Your task to perform on an android device: Open Google Chrome Image 0: 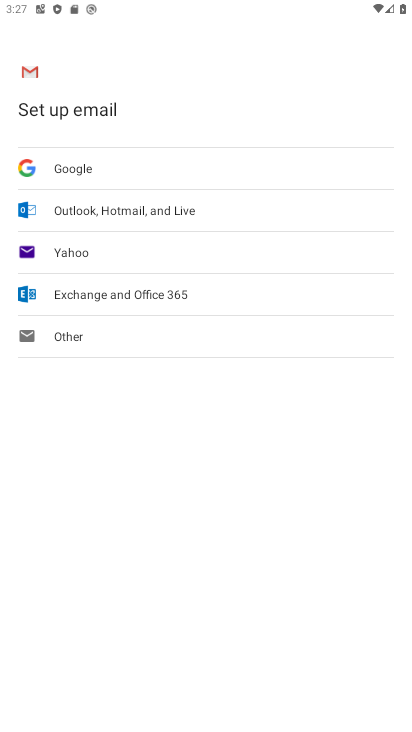
Step 0: press home button
Your task to perform on an android device: Open Google Chrome Image 1: 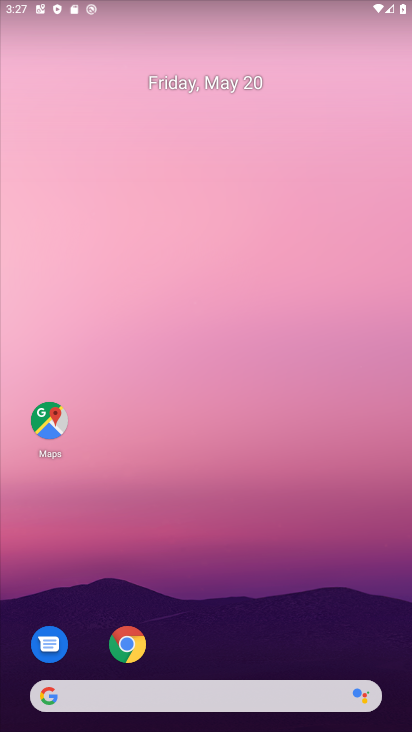
Step 1: click (137, 634)
Your task to perform on an android device: Open Google Chrome Image 2: 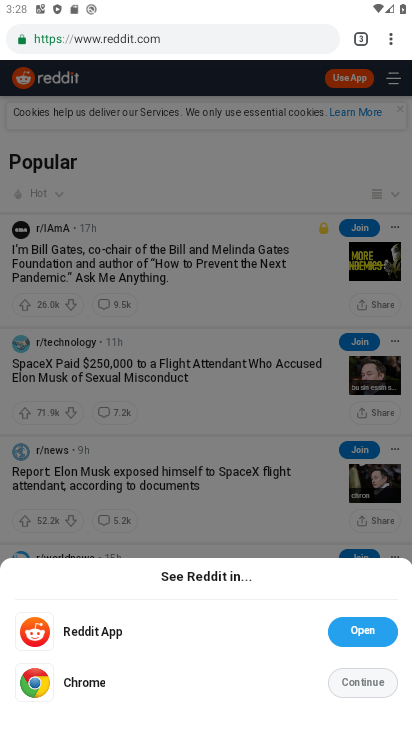
Step 2: click (119, 688)
Your task to perform on an android device: Open Google Chrome Image 3: 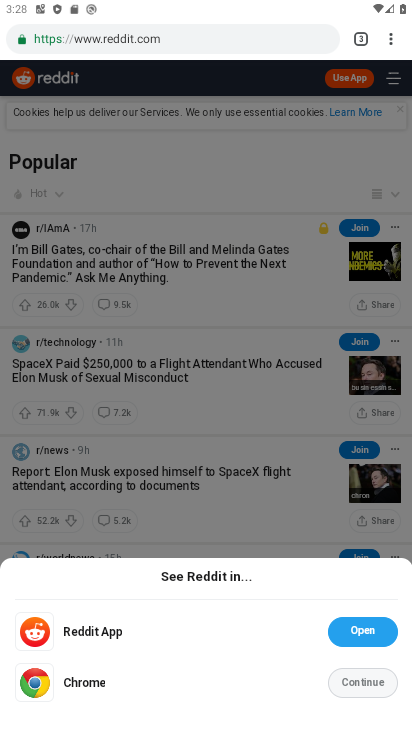
Step 3: click (359, 687)
Your task to perform on an android device: Open Google Chrome Image 4: 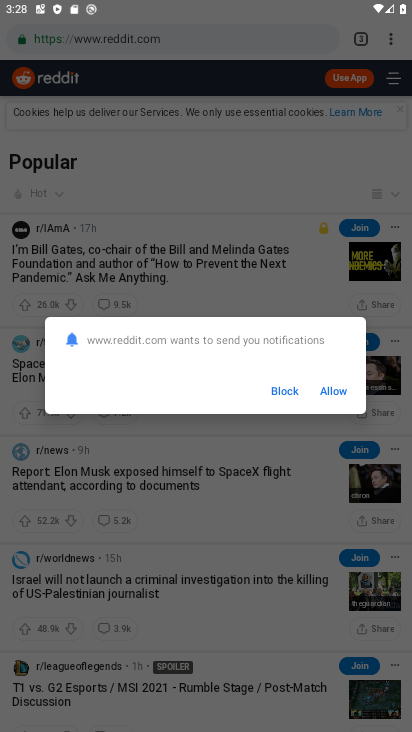
Step 4: click (329, 378)
Your task to perform on an android device: Open Google Chrome Image 5: 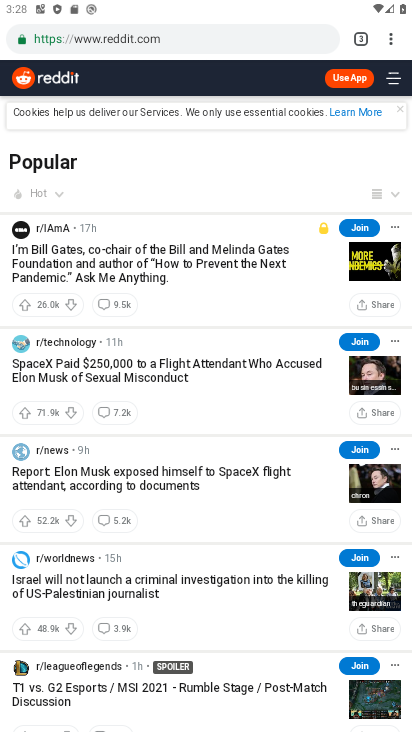
Step 5: task complete